Your task to perform on an android device: Empty the shopping cart on bestbuy. Image 0: 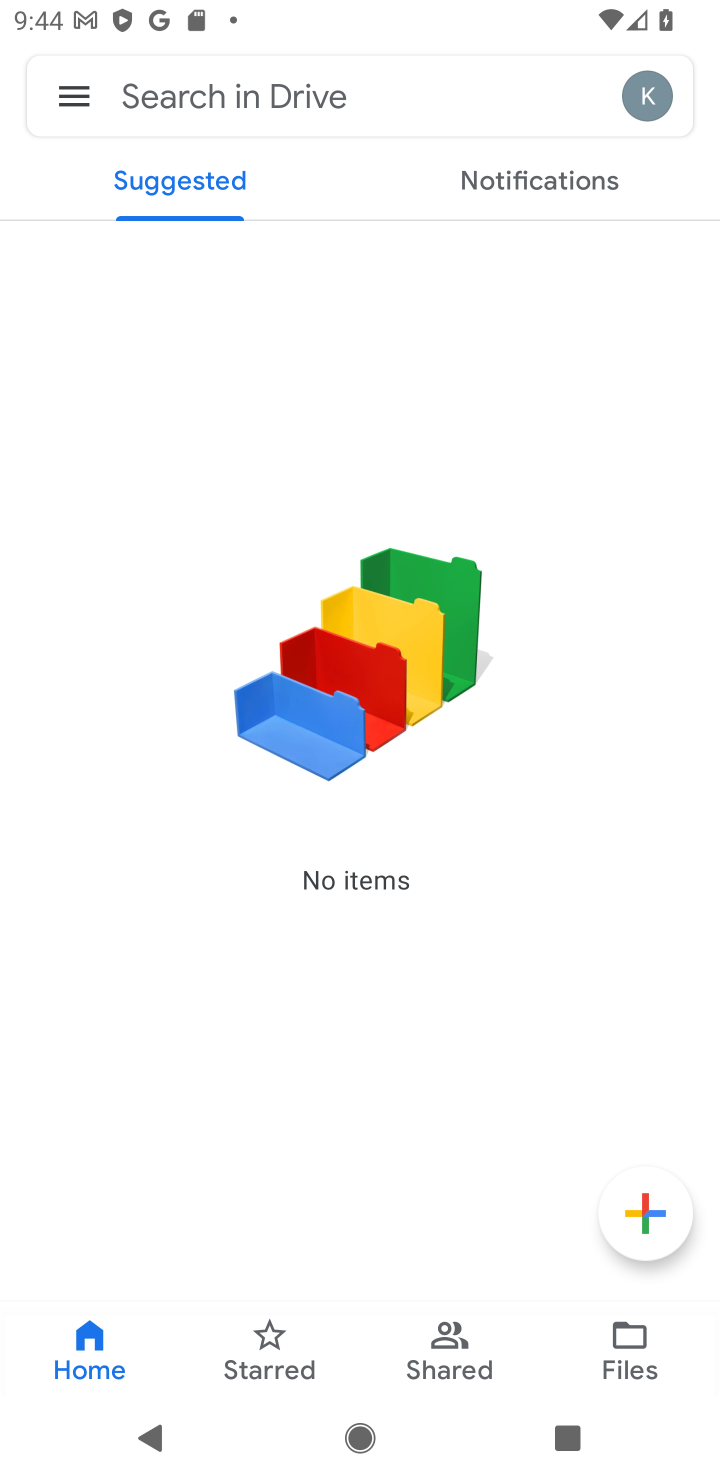
Step 0: task impossible